Your task to perform on an android device: change text size in settings app Image 0: 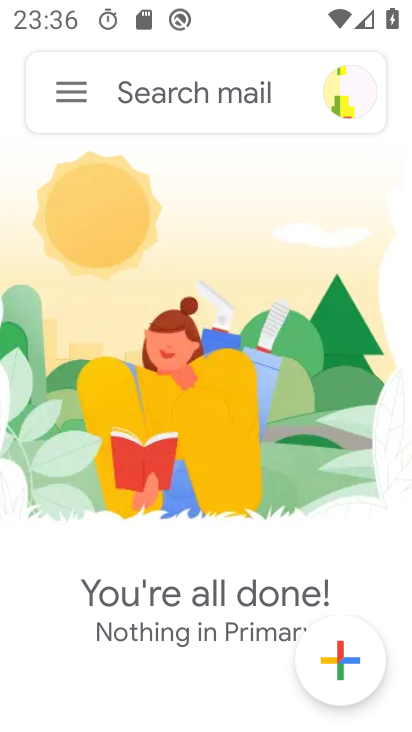
Step 0: press home button
Your task to perform on an android device: change text size in settings app Image 1: 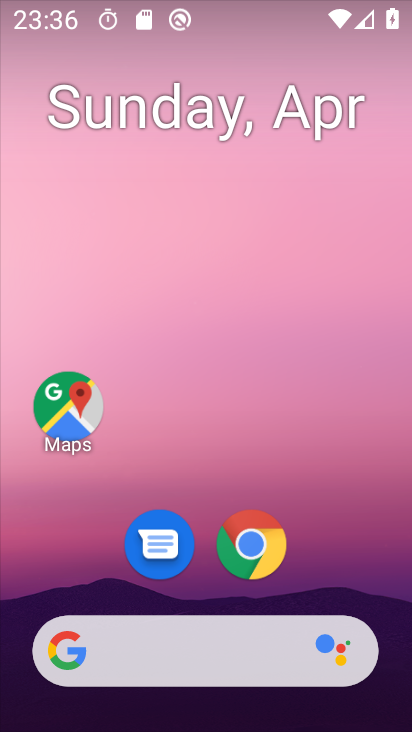
Step 1: drag from (317, 401) to (323, 231)
Your task to perform on an android device: change text size in settings app Image 2: 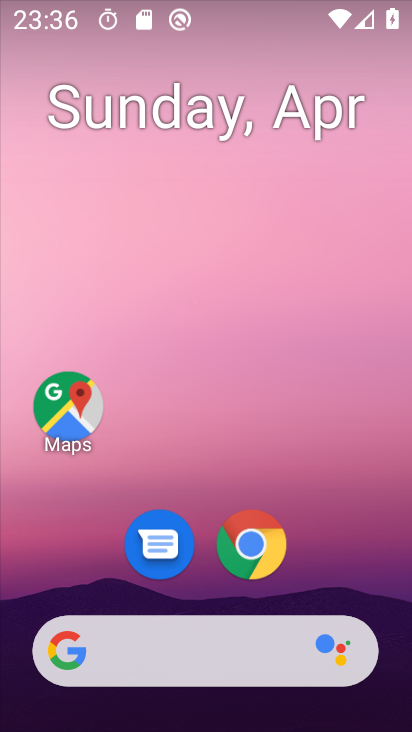
Step 2: drag from (332, 564) to (295, 139)
Your task to perform on an android device: change text size in settings app Image 3: 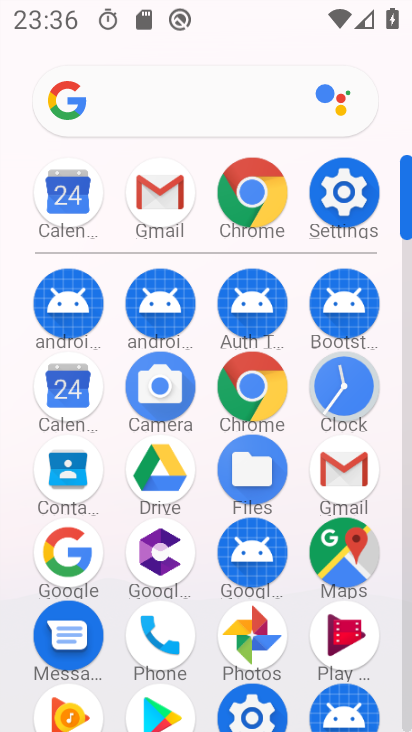
Step 3: click (339, 193)
Your task to perform on an android device: change text size in settings app Image 4: 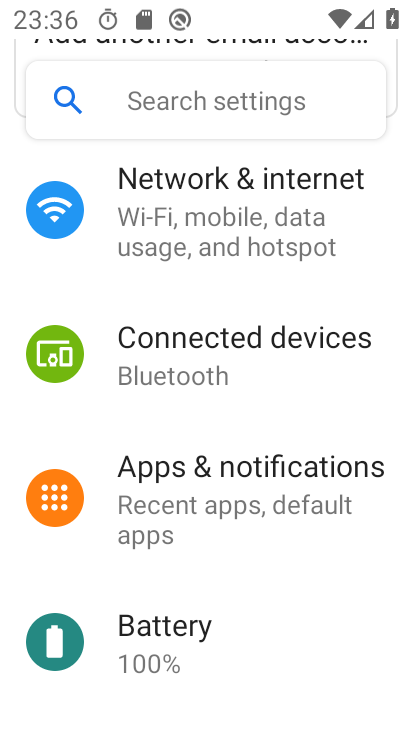
Step 4: drag from (236, 645) to (337, 101)
Your task to perform on an android device: change text size in settings app Image 5: 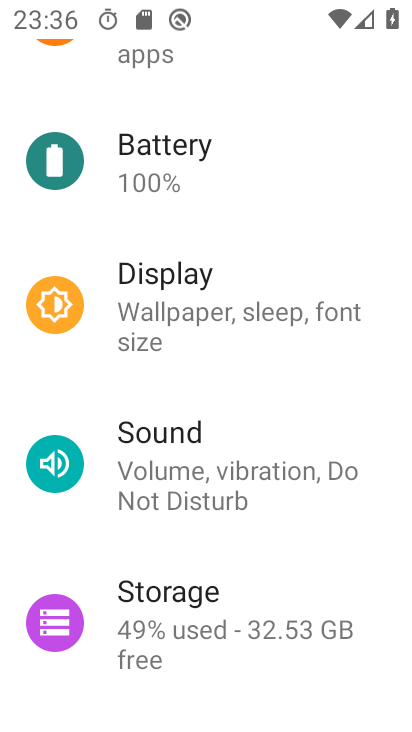
Step 5: drag from (220, 636) to (276, 225)
Your task to perform on an android device: change text size in settings app Image 6: 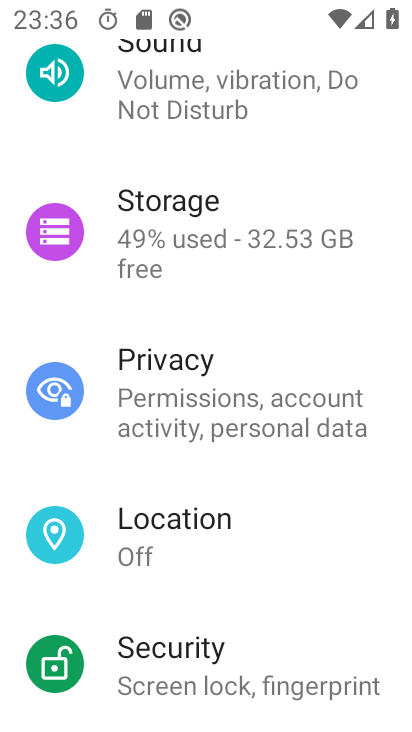
Step 6: drag from (219, 636) to (260, 220)
Your task to perform on an android device: change text size in settings app Image 7: 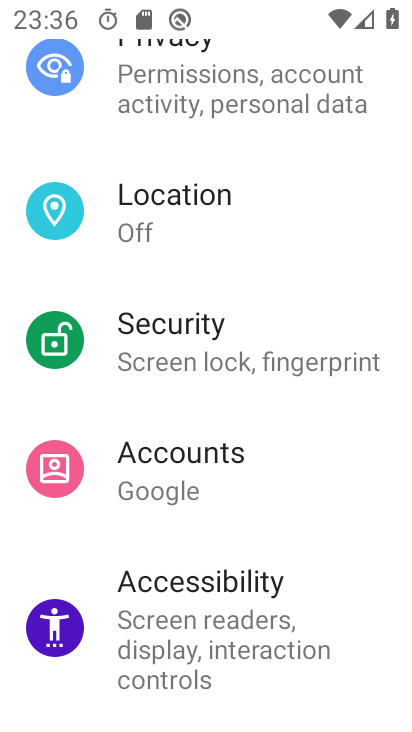
Step 7: click (152, 618)
Your task to perform on an android device: change text size in settings app Image 8: 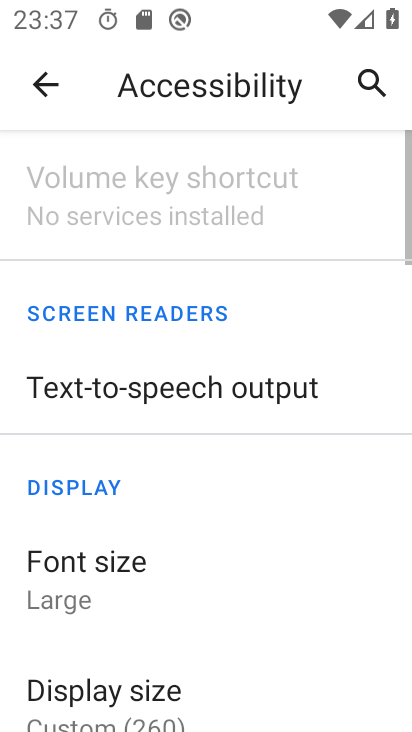
Step 8: click (143, 578)
Your task to perform on an android device: change text size in settings app Image 9: 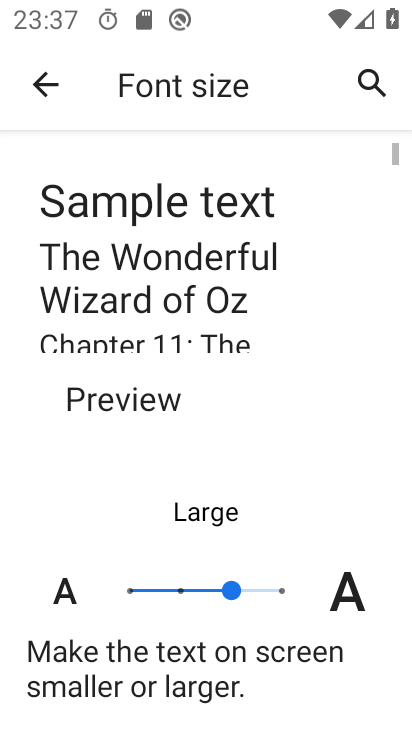
Step 9: click (178, 589)
Your task to perform on an android device: change text size in settings app Image 10: 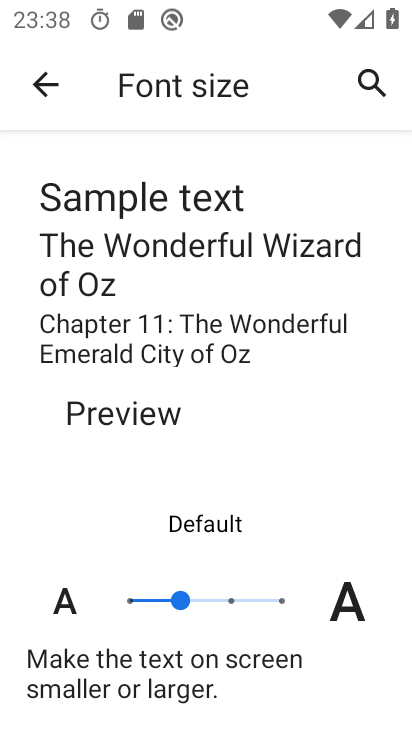
Step 10: task complete